Your task to perform on an android device: What's the price of the Galaxy phone? Image 0: 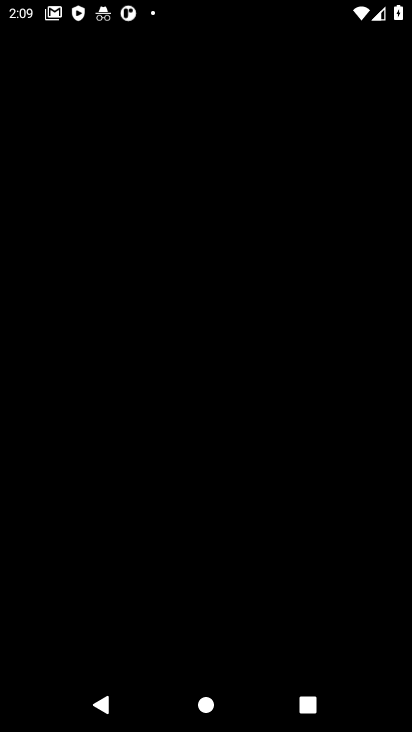
Step 0: press home button
Your task to perform on an android device: What's the price of the Galaxy phone? Image 1: 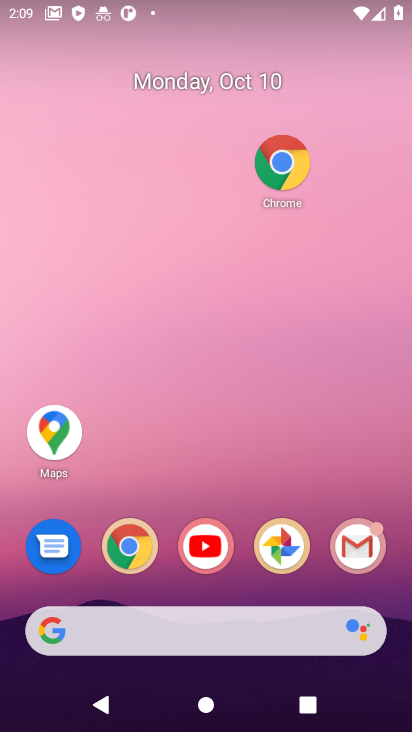
Step 1: click (131, 561)
Your task to perform on an android device: What's the price of the Galaxy phone? Image 2: 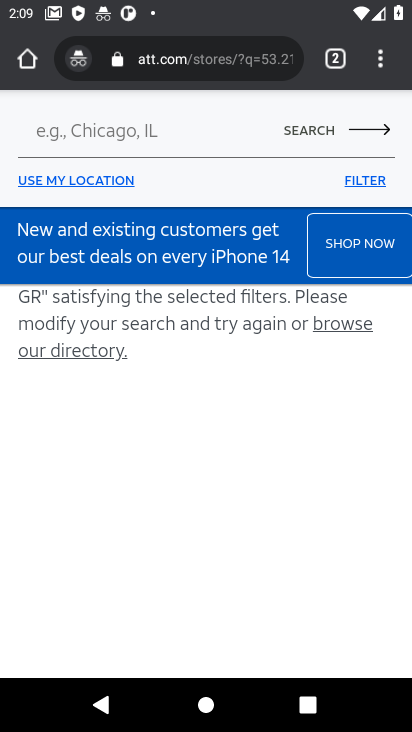
Step 2: click (150, 65)
Your task to perform on an android device: What's the price of the Galaxy phone? Image 3: 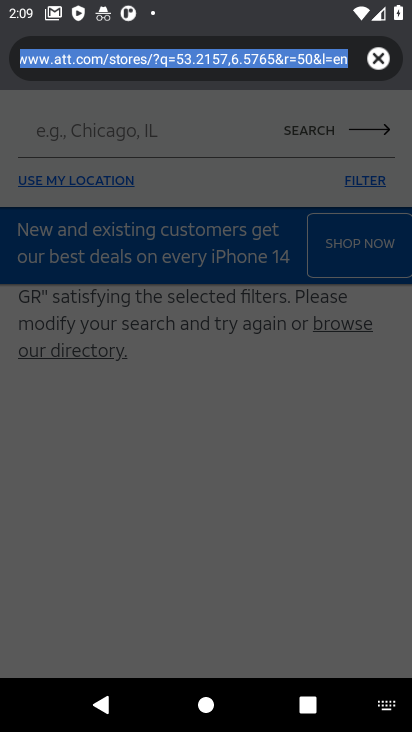
Step 3: click (101, 699)
Your task to perform on an android device: What's the price of the Galaxy phone? Image 4: 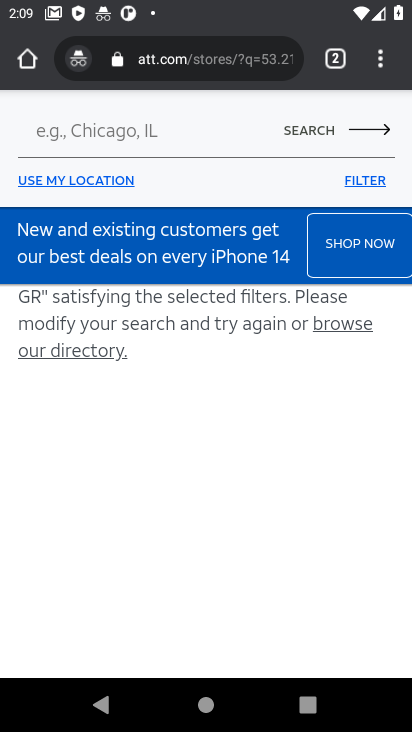
Step 4: type " the price of the Galaxy phone?"
Your task to perform on an android device: What's the price of the Galaxy phone? Image 5: 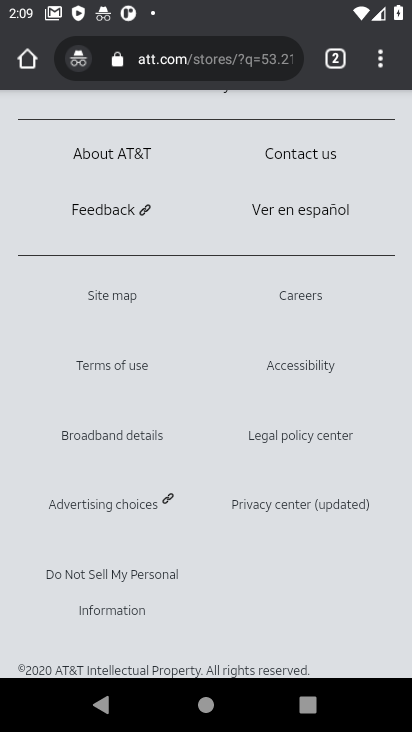
Step 5: click (243, 52)
Your task to perform on an android device: What's the price of the Galaxy phone? Image 6: 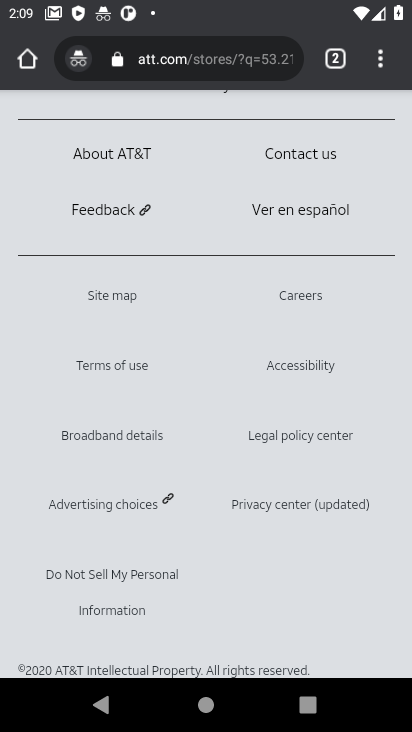
Step 6: click (243, 52)
Your task to perform on an android device: What's the price of the Galaxy phone? Image 7: 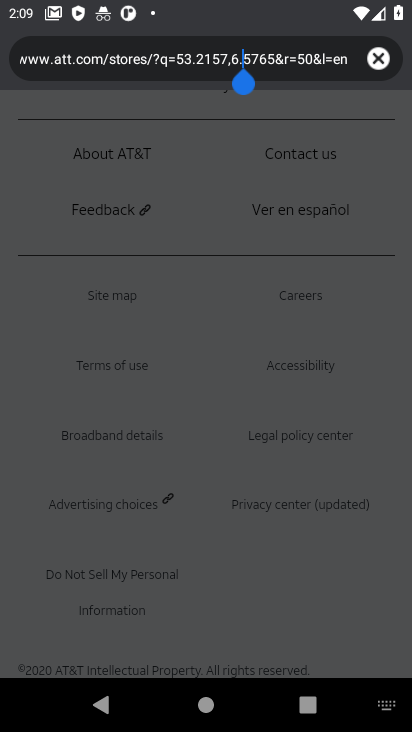
Step 7: click (387, 66)
Your task to perform on an android device: What's the price of the Galaxy phone? Image 8: 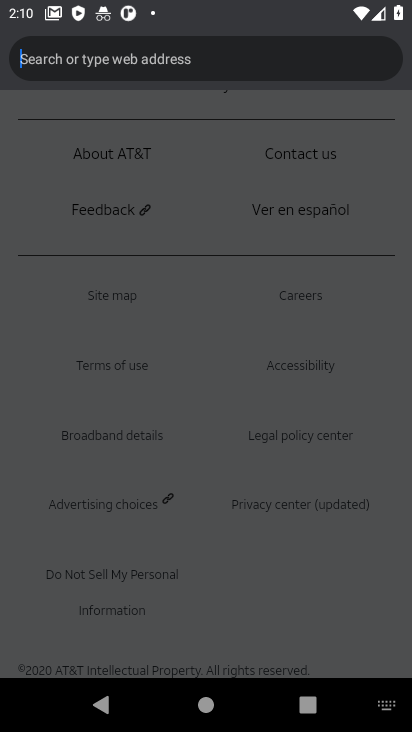
Step 8: type " the price of the Galaxy phone?"
Your task to perform on an android device: What's the price of the Galaxy phone? Image 9: 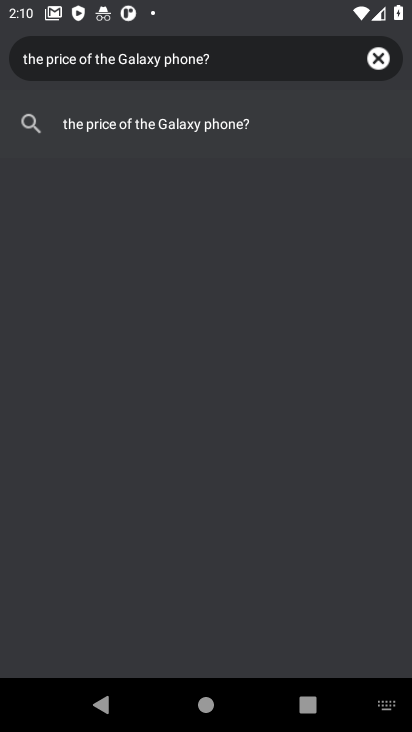
Step 9: click (225, 135)
Your task to perform on an android device: What's the price of the Galaxy phone? Image 10: 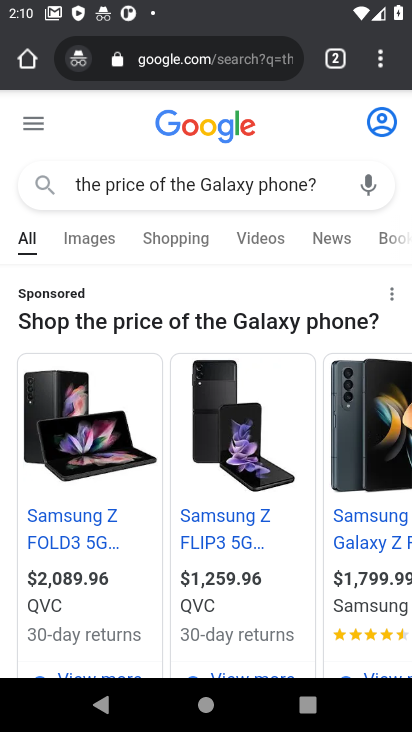
Step 10: task complete